Your task to perform on an android device: Open sound settings Image 0: 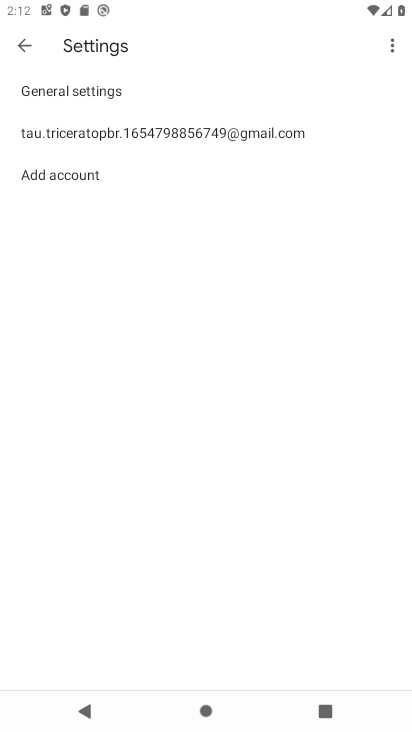
Step 0: press back button
Your task to perform on an android device: Open sound settings Image 1: 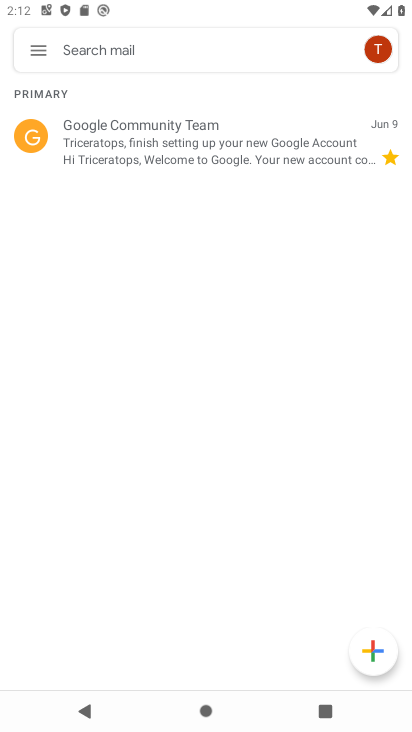
Step 1: press back button
Your task to perform on an android device: Open sound settings Image 2: 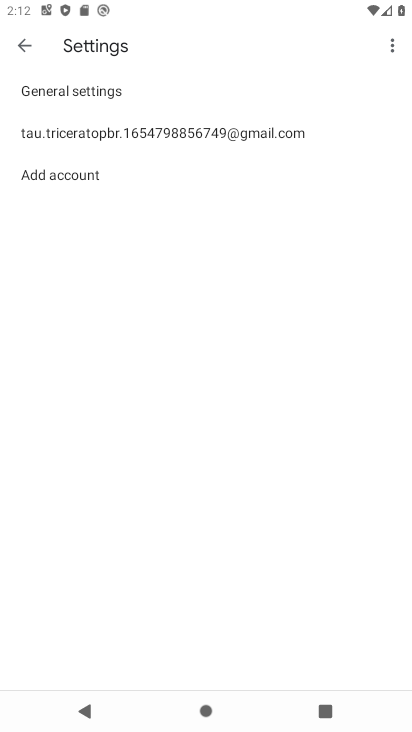
Step 2: press back button
Your task to perform on an android device: Open sound settings Image 3: 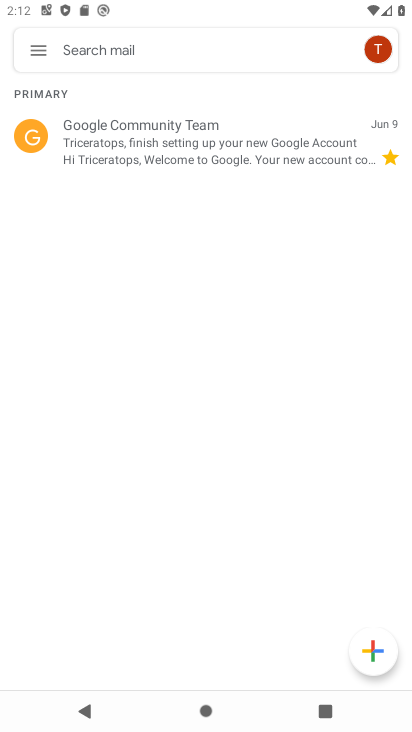
Step 3: press back button
Your task to perform on an android device: Open sound settings Image 4: 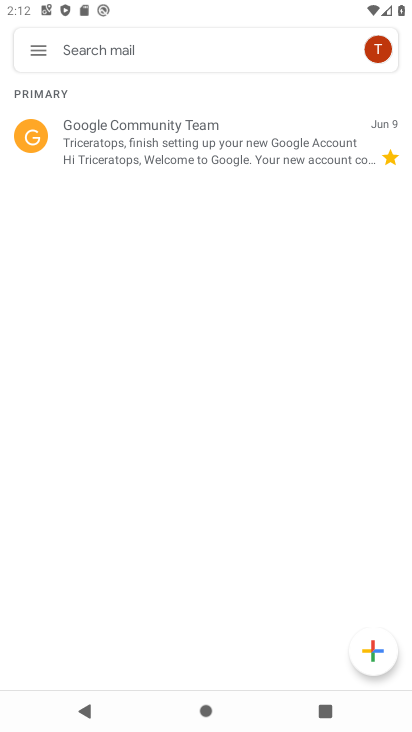
Step 4: press back button
Your task to perform on an android device: Open sound settings Image 5: 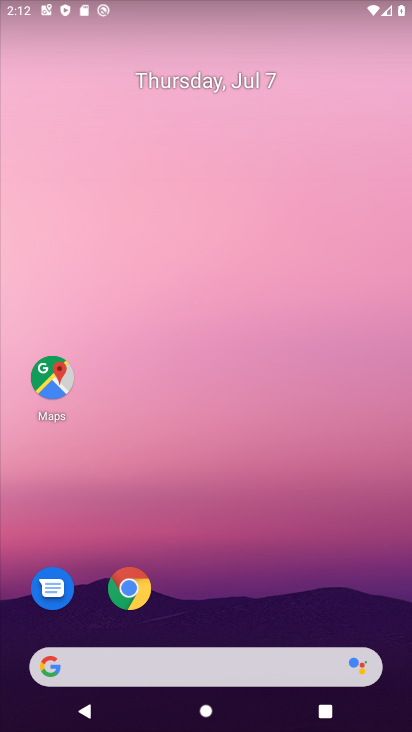
Step 5: drag from (231, 630) to (281, 19)
Your task to perform on an android device: Open sound settings Image 6: 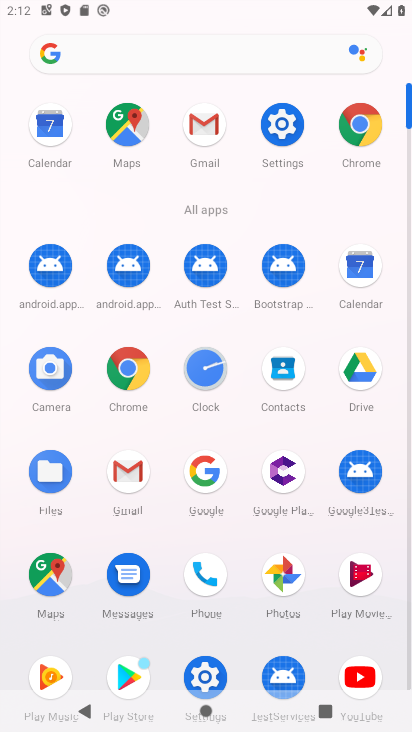
Step 6: click (274, 137)
Your task to perform on an android device: Open sound settings Image 7: 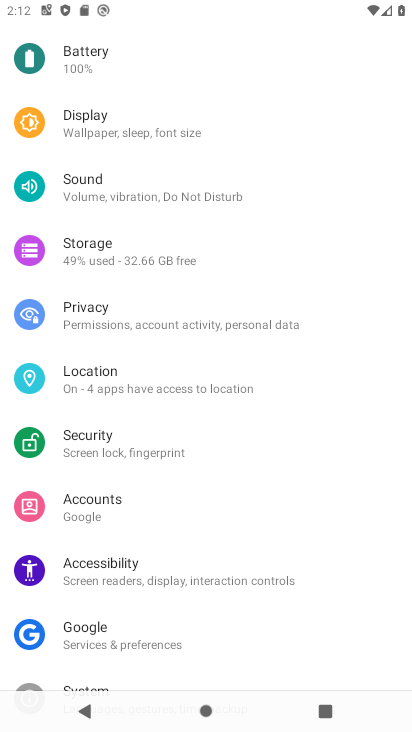
Step 7: click (128, 182)
Your task to perform on an android device: Open sound settings Image 8: 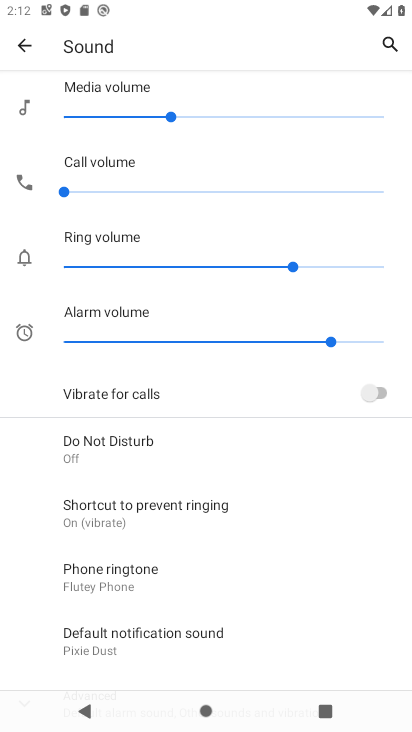
Step 8: task complete